Your task to perform on an android device: toggle javascript in the chrome app Image 0: 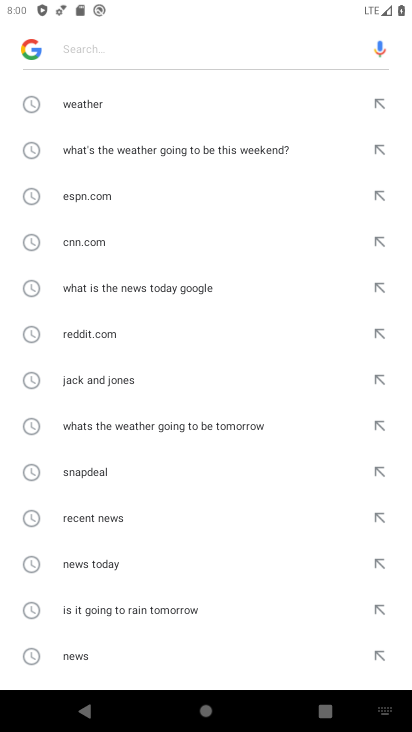
Step 0: press home button
Your task to perform on an android device: toggle javascript in the chrome app Image 1: 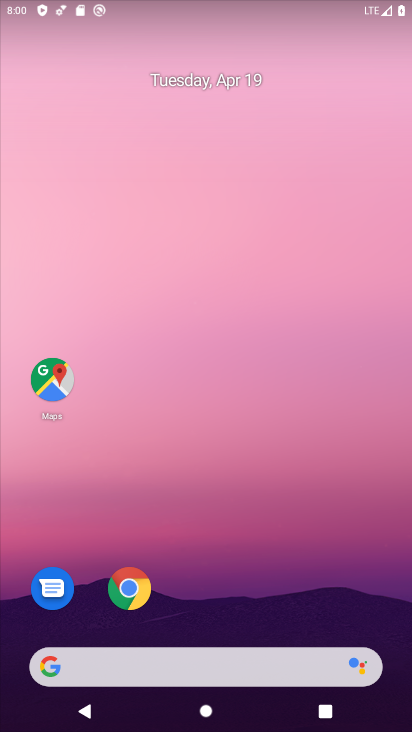
Step 1: click (129, 582)
Your task to perform on an android device: toggle javascript in the chrome app Image 2: 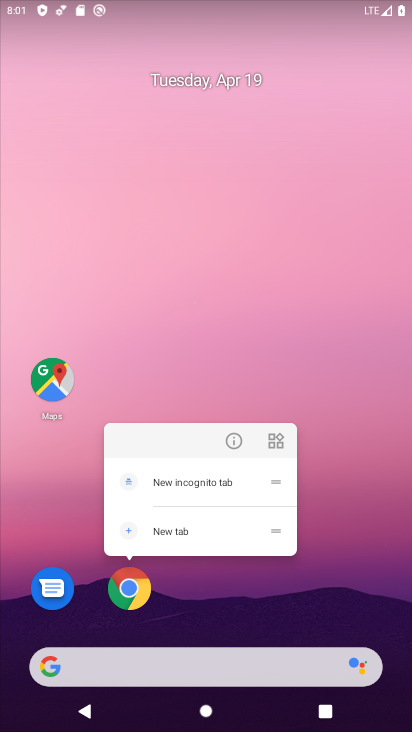
Step 2: click (126, 585)
Your task to perform on an android device: toggle javascript in the chrome app Image 3: 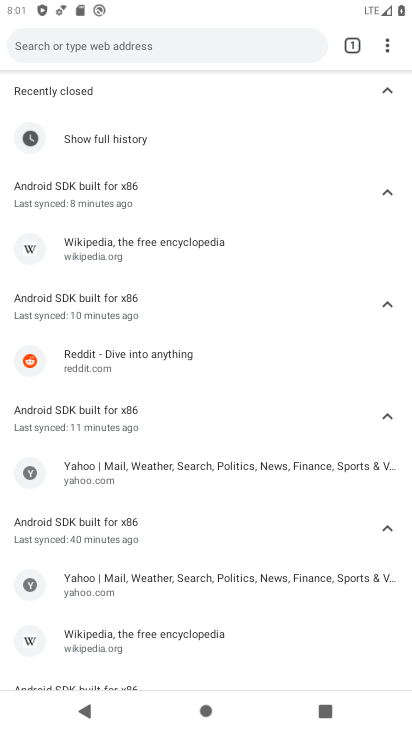
Step 3: click (388, 42)
Your task to perform on an android device: toggle javascript in the chrome app Image 4: 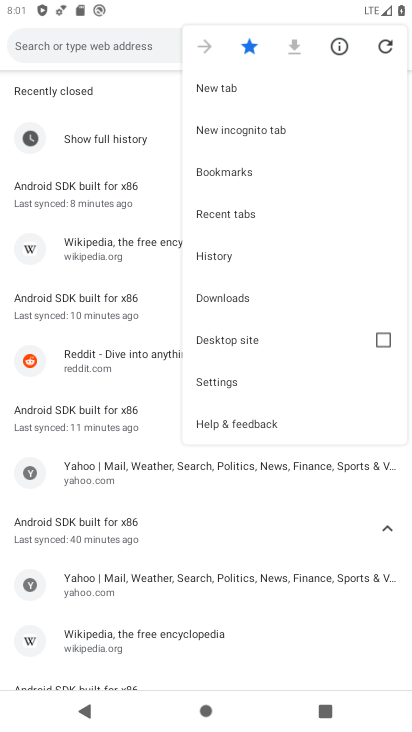
Step 4: click (241, 379)
Your task to perform on an android device: toggle javascript in the chrome app Image 5: 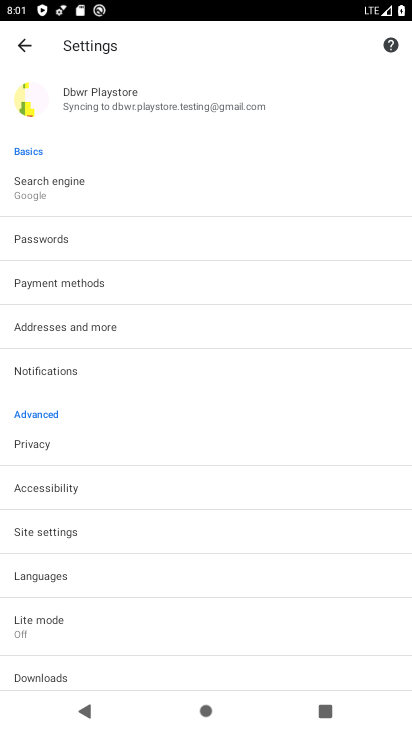
Step 5: click (87, 528)
Your task to perform on an android device: toggle javascript in the chrome app Image 6: 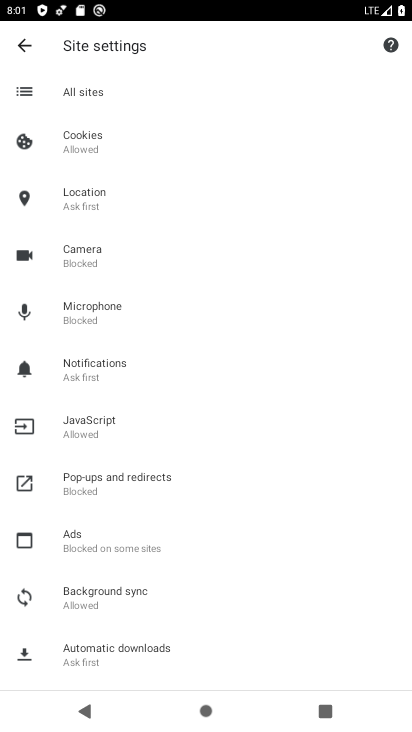
Step 6: click (131, 428)
Your task to perform on an android device: toggle javascript in the chrome app Image 7: 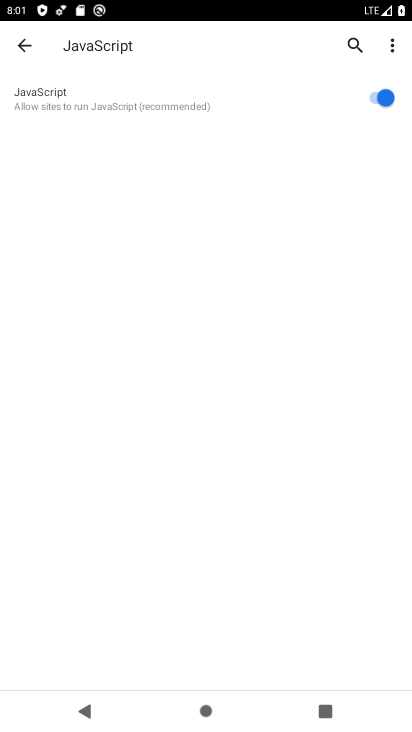
Step 7: click (374, 95)
Your task to perform on an android device: toggle javascript in the chrome app Image 8: 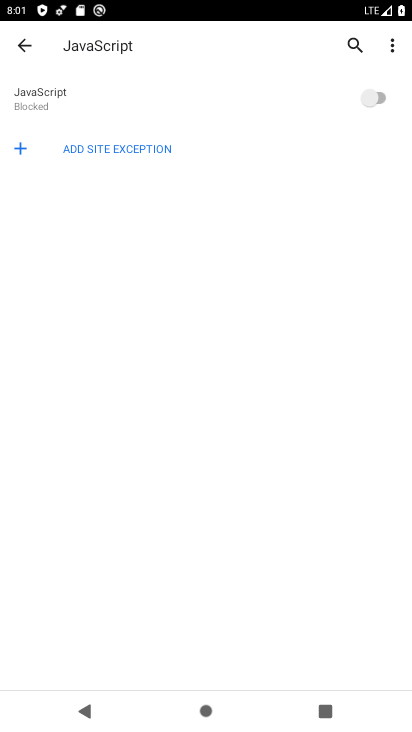
Step 8: task complete